Your task to perform on an android device: Open Chrome and go to settings Image 0: 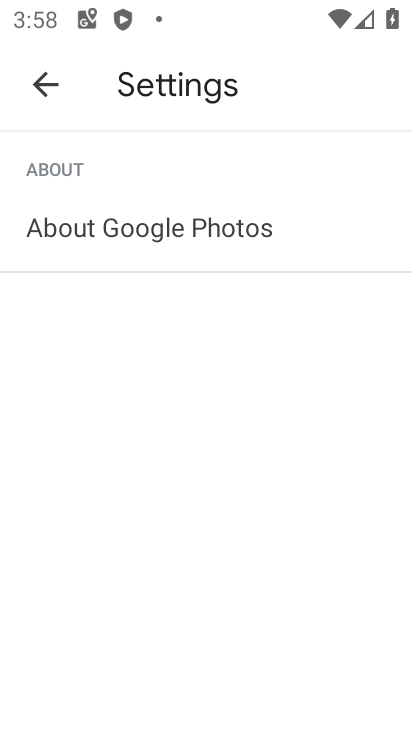
Step 0: press home button
Your task to perform on an android device: Open Chrome and go to settings Image 1: 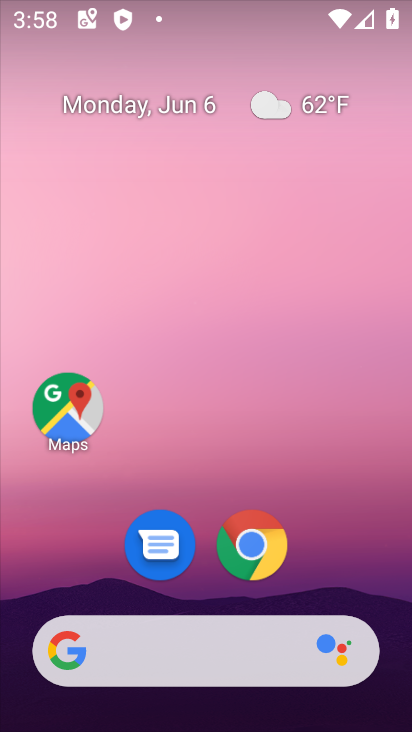
Step 1: click (257, 545)
Your task to perform on an android device: Open Chrome and go to settings Image 2: 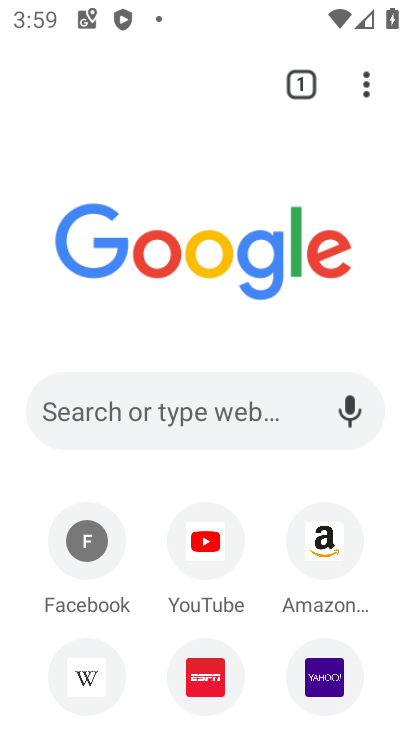
Step 2: click (365, 94)
Your task to perform on an android device: Open Chrome and go to settings Image 3: 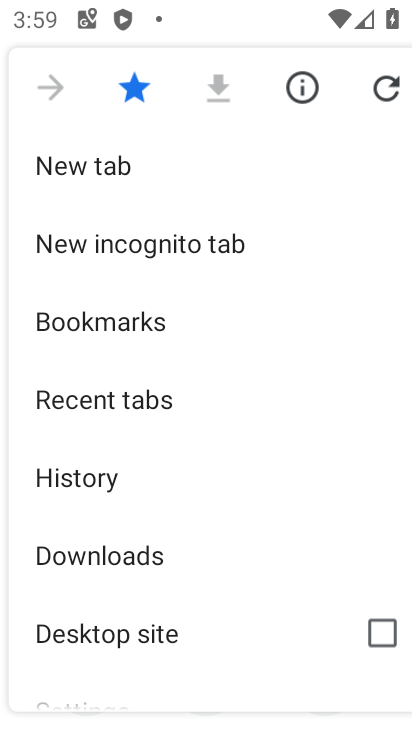
Step 3: drag from (117, 670) to (127, 227)
Your task to perform on an android device: Open Chrome and go to settings Image 4: 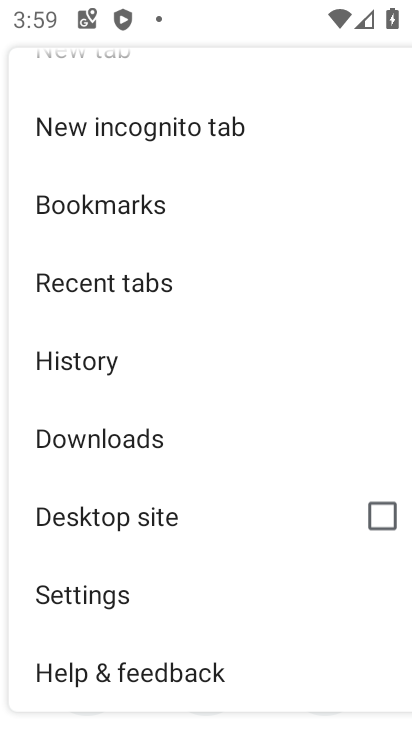
Step 4: click (94, 594)
Your task to perform on an android device: Open Chrome and go to settings Image 5: 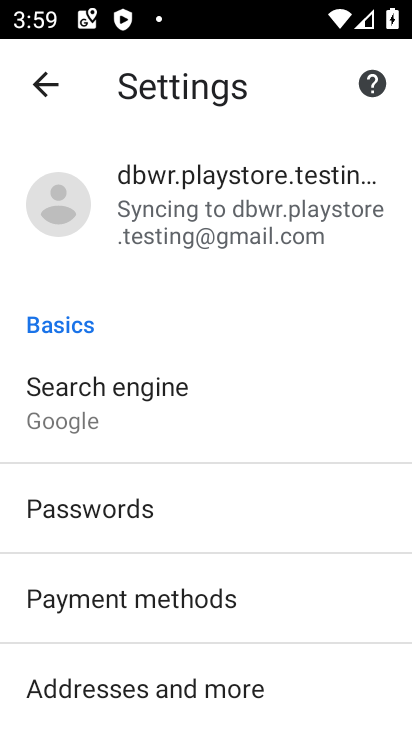
Step 5: task complete